Your task to perform on an android device: Open Wikipedia Image 0: 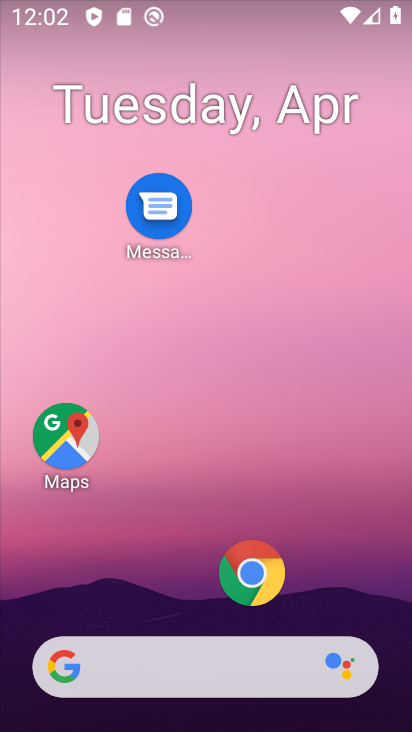
Step 0: drag from (172, 591) to (104, 17)
Your task to perform on an android device: Open Wikipedia Image 1: 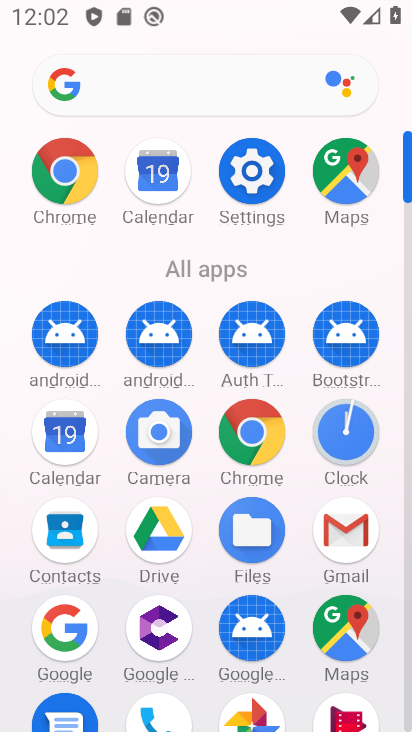
Step 1: click (56, 198)
Your task to perform on an android device: Open Wikipedia Image 2: 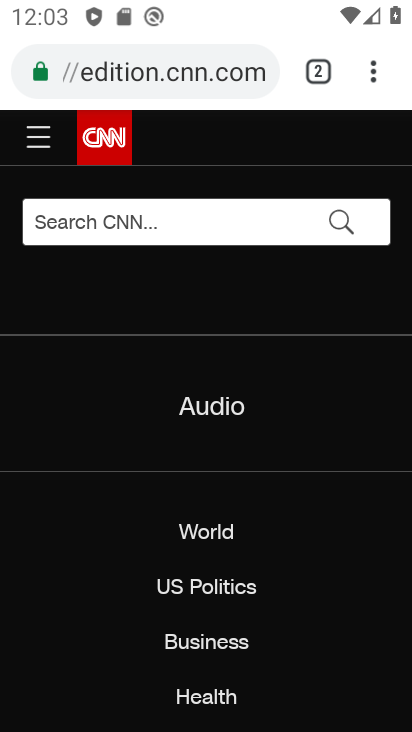
Step 2: click (313, 70)
Your task to perform on an android device: Open Wikipedia Image 3: 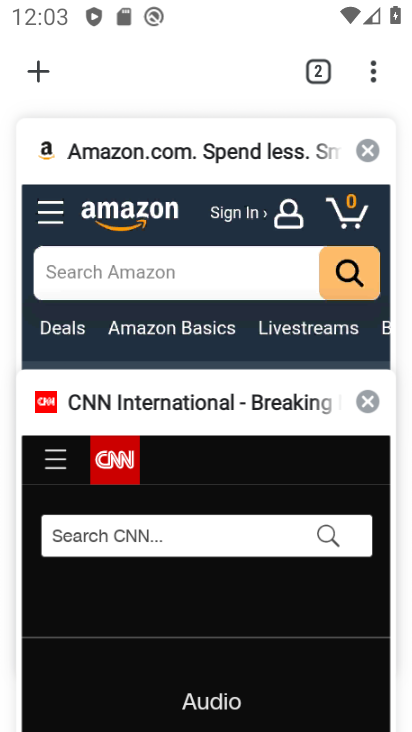
Step 3: click (43, 71)
Your task to perform on an android device: Open Wikipedia Image 4: 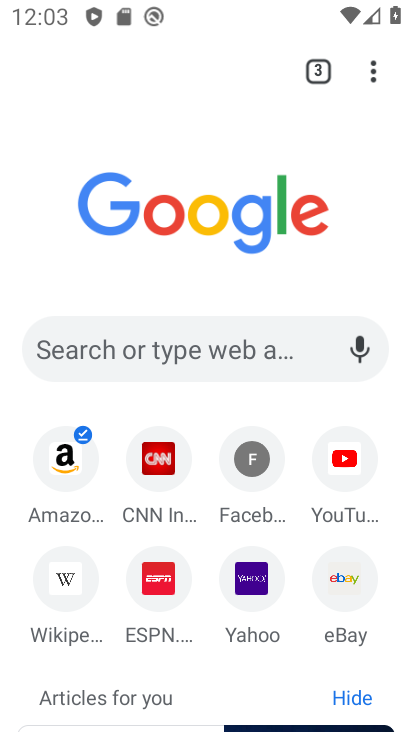
Step 4: click (68, 590)
Your task to perform on an android device: Open Wikipedia Image 5: 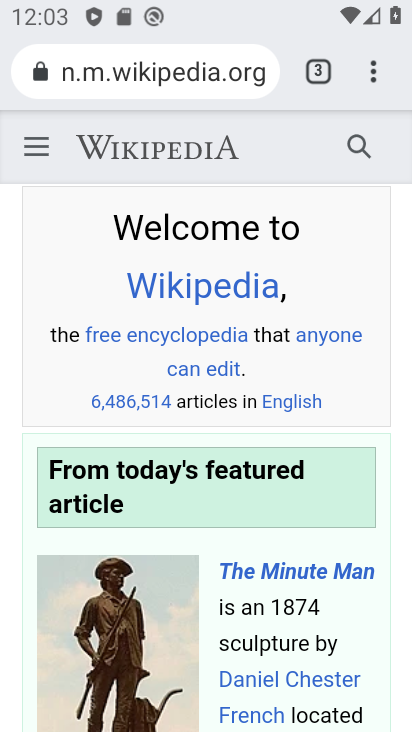
Step 5: task complete